Your task to perform on an android device: Check the weather Image 0: 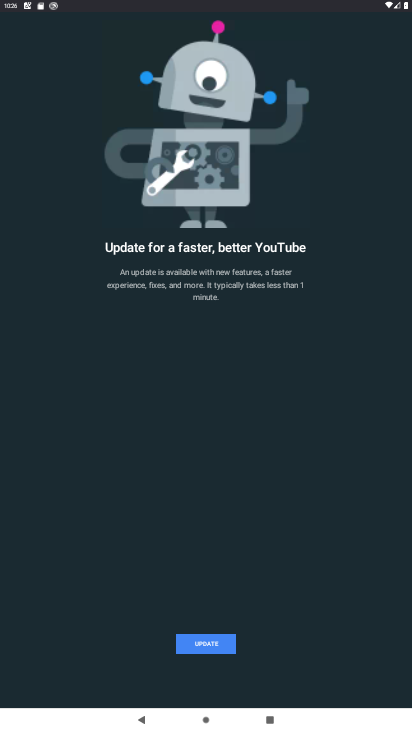
Step 0: press home button
Your task to perform on an android device: Check the weather Image 1: 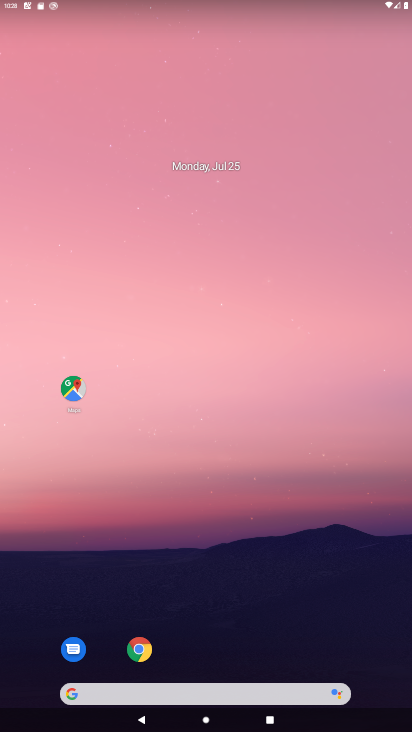
Step 1: click (164, 693)
Your task to perform on an android device: Check the weather Image 2: 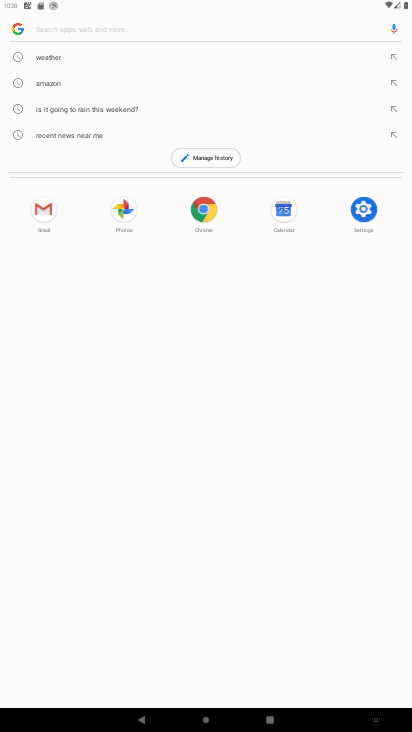
Step 2: click (50, 55)
Your task to perform on an android device: Check the weather Image 3: 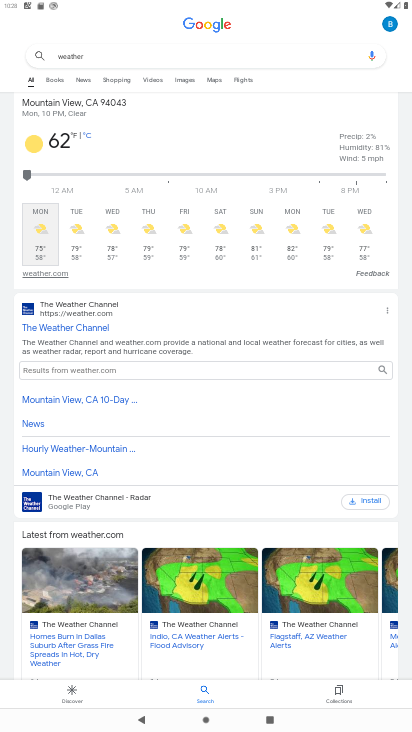
Step 3: task complete